Your task to perform on an android device: turn off javascript in the chrome app Image 0: 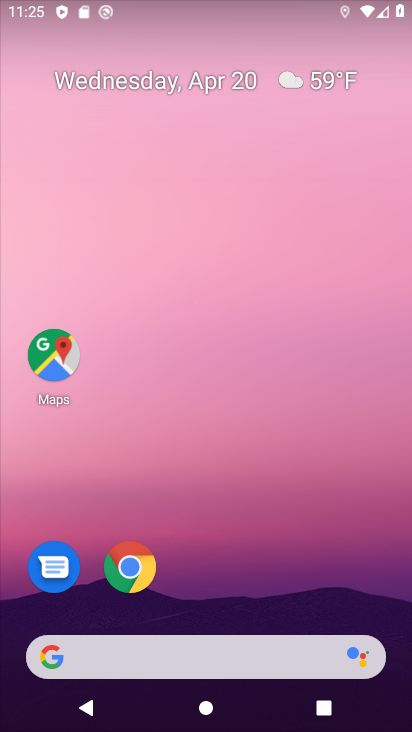
Step 0: click (133, 557)
Your task to perform on an android device: turn off javascript in the chrome app Image 1: 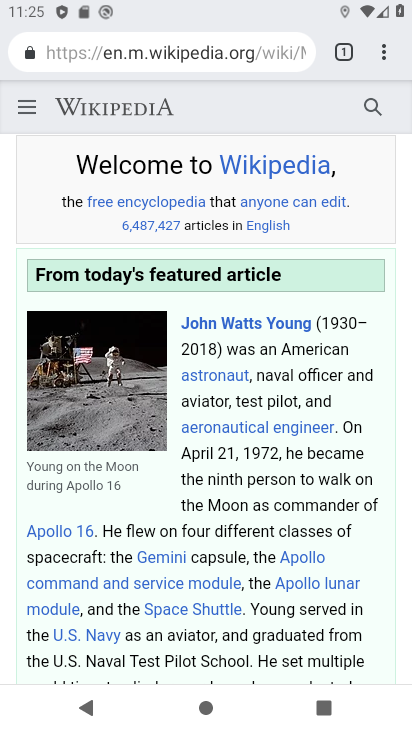
Step 1: click (376, 52)
Your task to perform on an android device: turn off javascript in the chrome app Image 2: 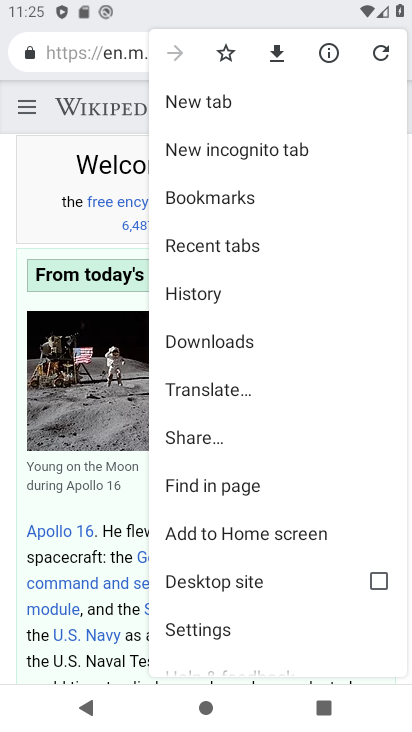
Step 2: click (258, 630)
Your task to perform on an android device: turn off javascript in the chrome app Image 3: 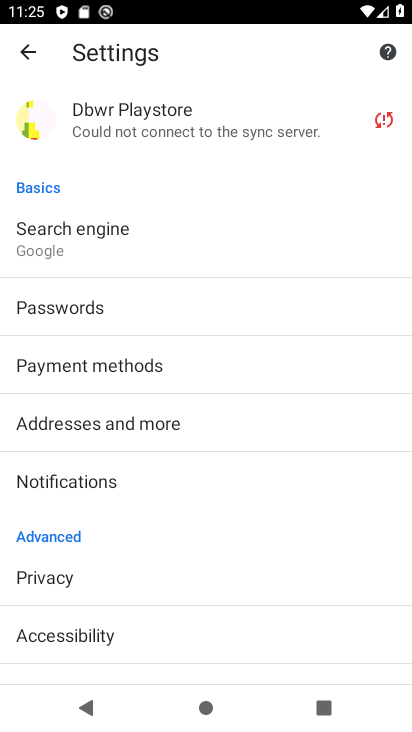
Step 3: drag from (122, 578) to (98, 486)
Your task to perform on an android device: turn off javascript in the chrome app Image 4: 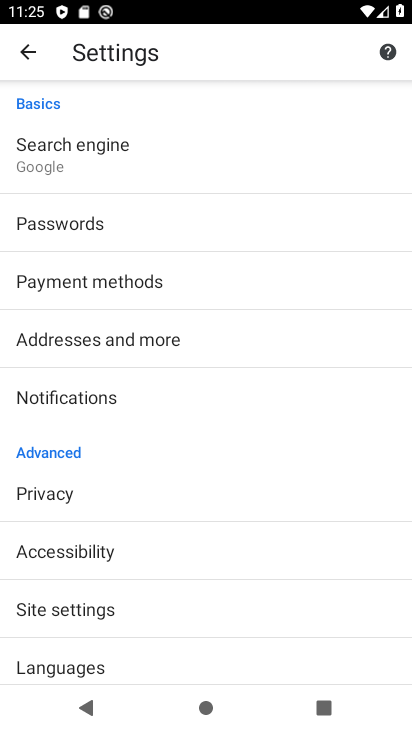
Step 4: click (99, 594)
Your task to perform on an android device: turn off javascript in the chrome app Image 5: 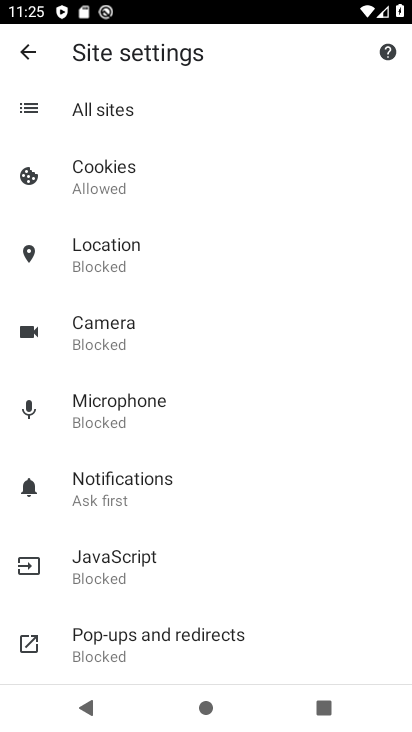
Step 5: click (101, 568)
Your task to perform on an android device: turn off javascript in the chrome app Image 6: 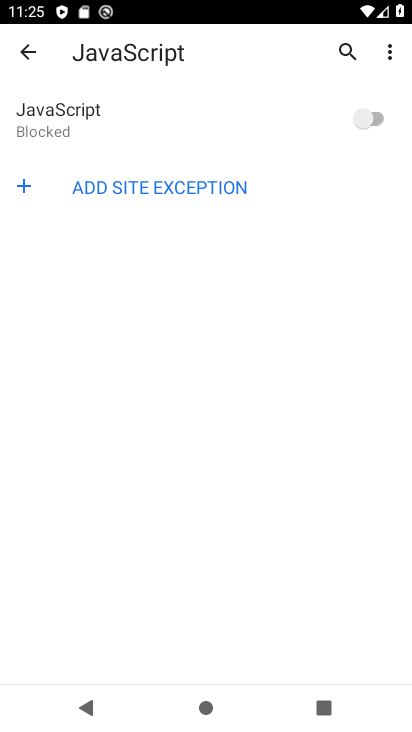
Step 6: task complete